Your task to perform on an android device: Is it going to rain today? Image 0: 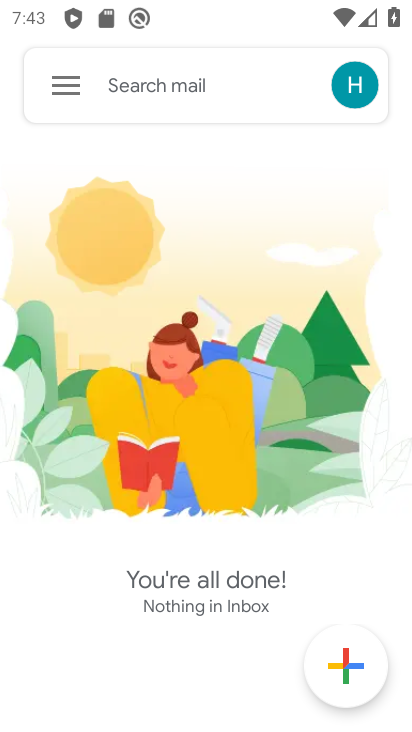
Step 0: press back button
Your task to perform on an android device: Is it going to rain today? Image 1: 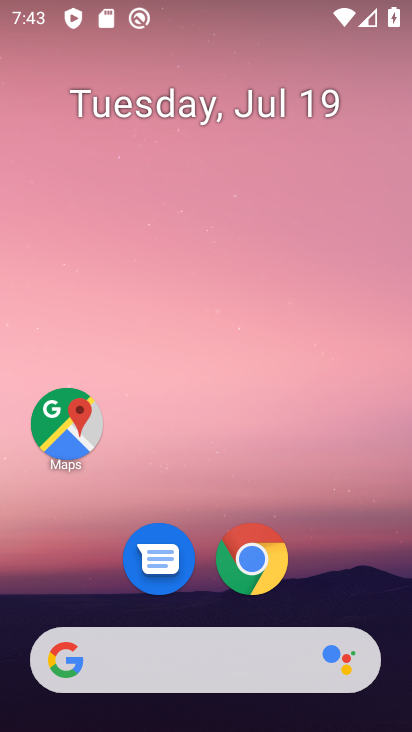
Step 1: drag from (102, 503) to (220, 2)
Your task to perform on an android device: Is it going to rain today? Image 2: 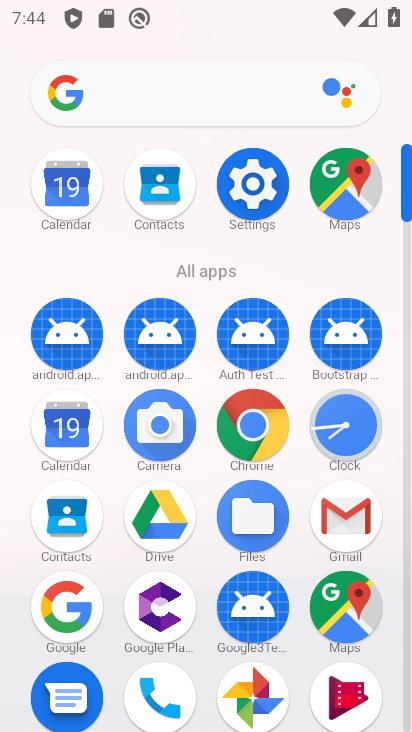
Step 2: click (212, 95)
Your task to perform on an android device: Is it going to rain today? Image 3: 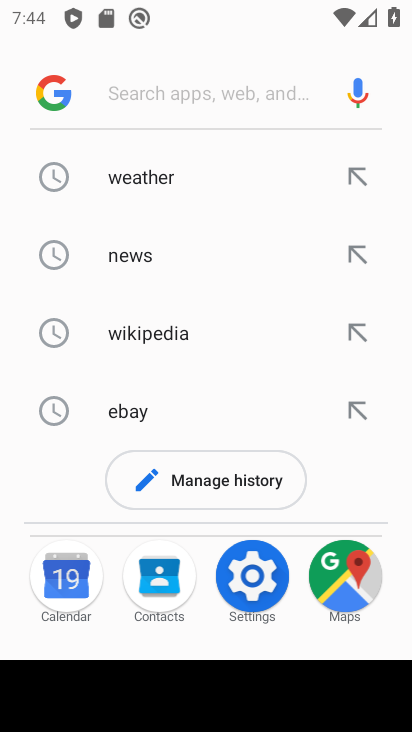
Step 3: click (143, 187)
Your task to perform on an android device: Is it going to rain today? Image 4: 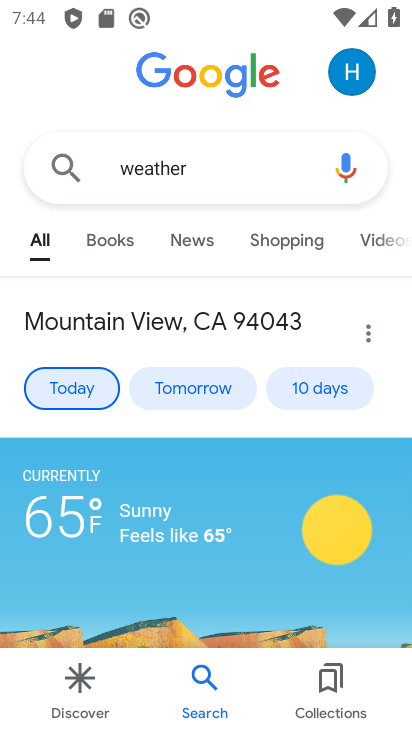
Step 4: task complete